Your task to perform on an android device: check google app version Image 0: 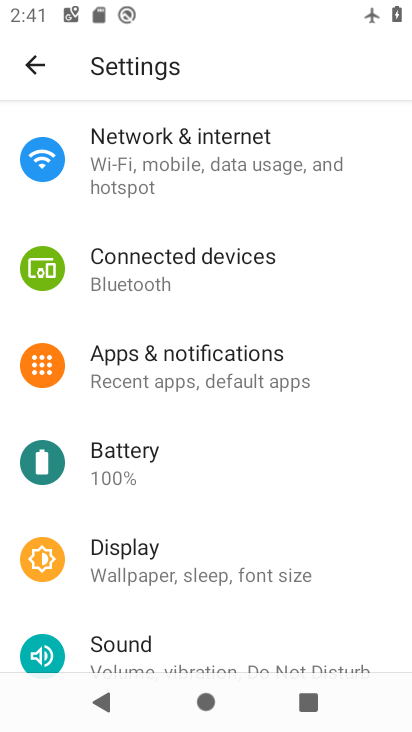
Step 0: press home button
Your task to perform on an android device: check google app version Image 1: 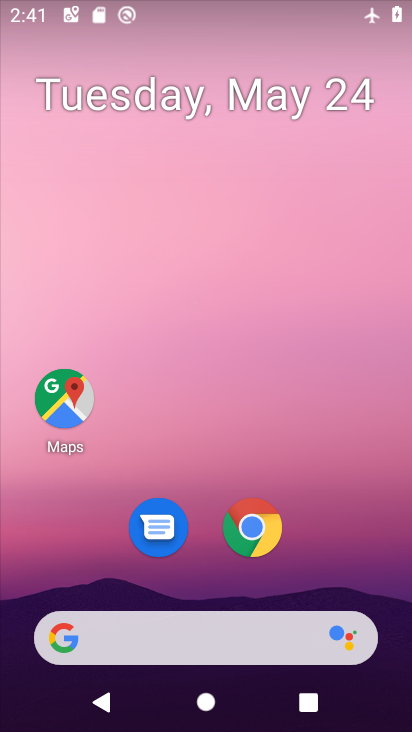
Step 1: drag from (313, 557) to (308, 17)
Your task to perform on an android device: check google app version Image 2: 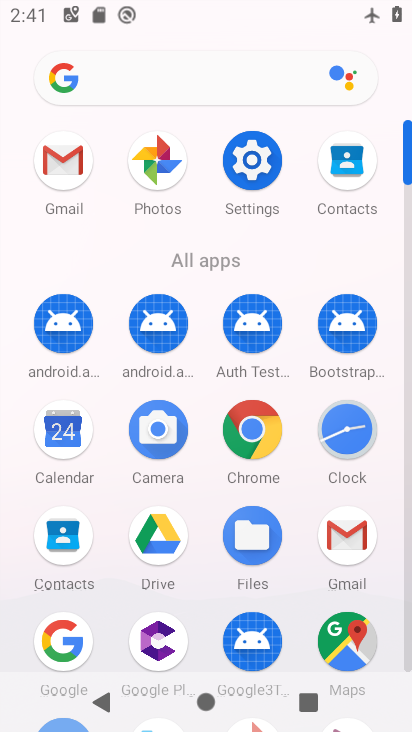
Step 2: click (57, 645)
Your task to perform on an android device: check google app version Image 3: 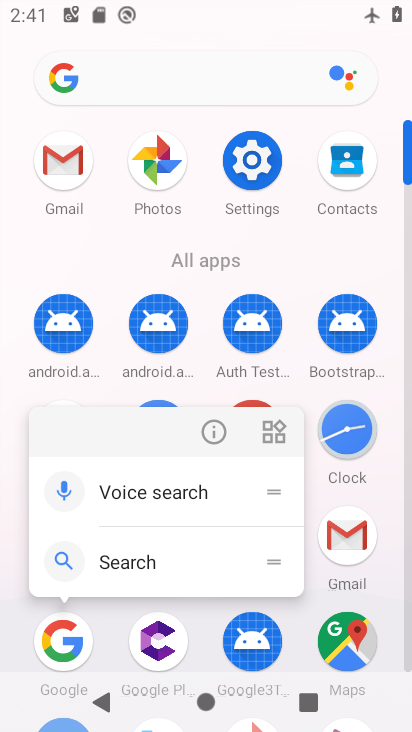
Step 3: click (213, 434)
Your task to perform on an android device: check google app version Image 4: 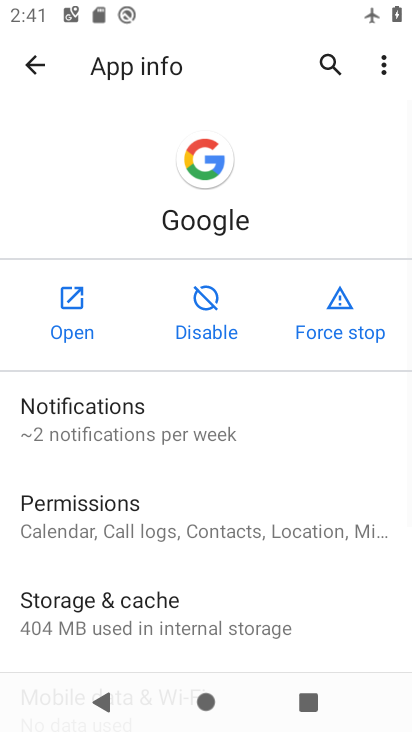
Step 4: drag from (260, 574) to (249, 29)
Your task to perform on an android device: check google app version Image 5: 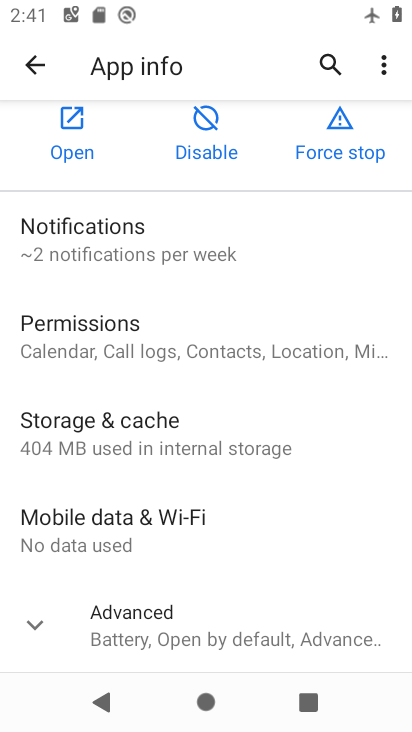
Step 5: drag from (177, 530) to (194, 256)
Your task to perform on an android device: check google app version Image 6: 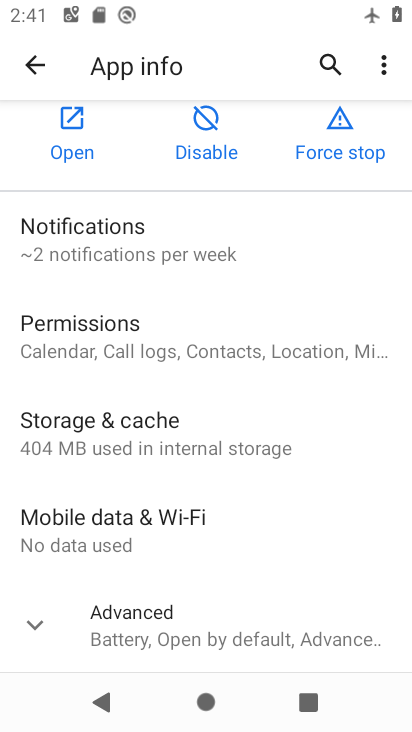
Step 6: click (29, 630)
Your task to perform on an android device: check google app version Image 7: 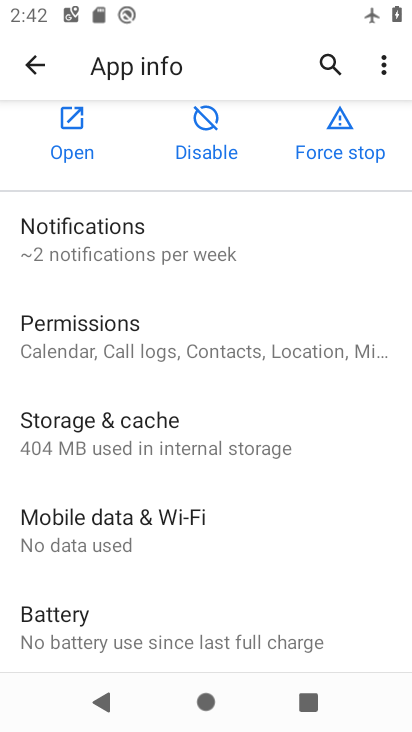
Step 7: task complete